Your task to perform on an android device: turn on airplane mode Image 0: 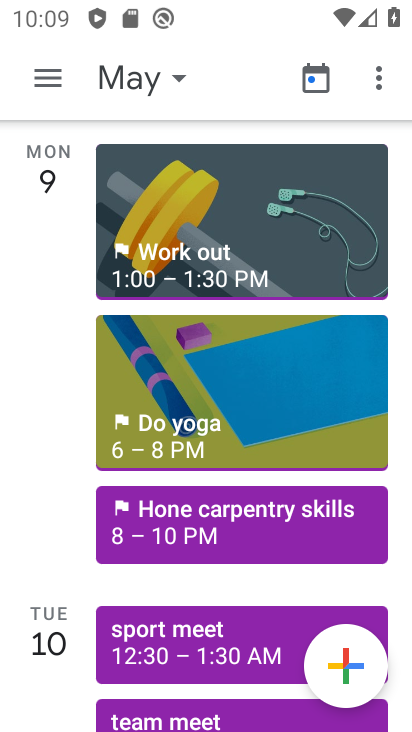
Step 0: press home button
Your task to perform on an android device: turn on airplane mode Image 1: 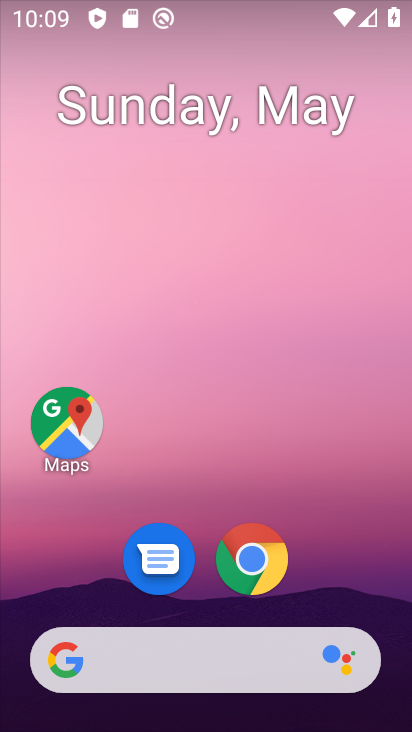
Step 1: drag from (337, 10) to (313, 731)
Your task to perform on an android device: turn on airplane mode Image 2: 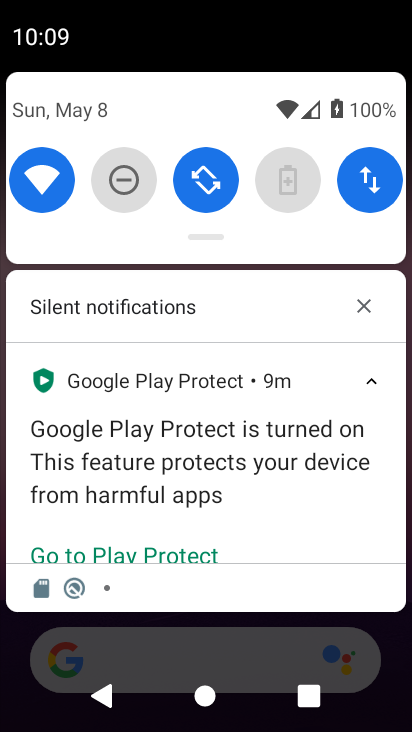
Step 2: drag from (222, 266) to (246, 630)
Your task to perform on an android device: turn on airplane mode Image 3: 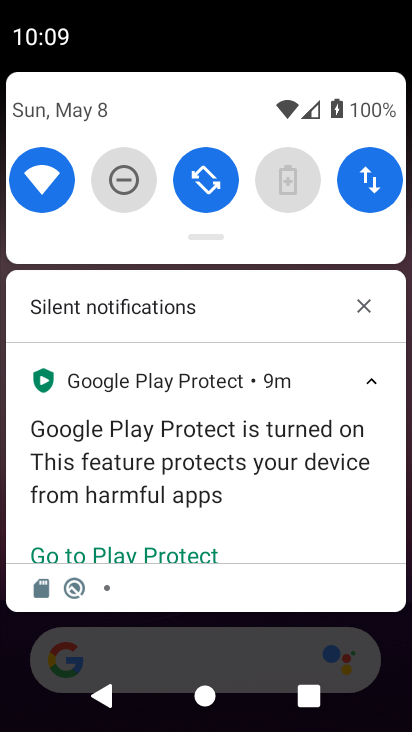
Step 3: drag from (201, 238) to (213, 728)
Your task to perform on an android device: turn on airplane mode Image 4: 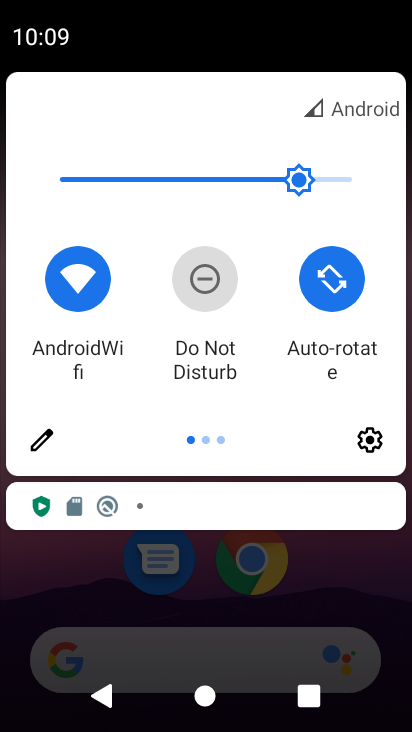
Step 4: drag from (384, 276) to (52, 284)
Your task to perform on an android device: turn on airplane mode Image 5: 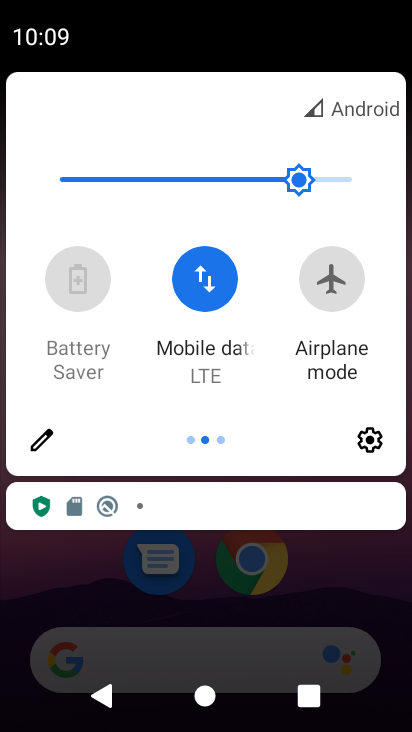
Step 5: click (339, 287)
Your task to perform on an android device: turn on airplane mode Image 6: 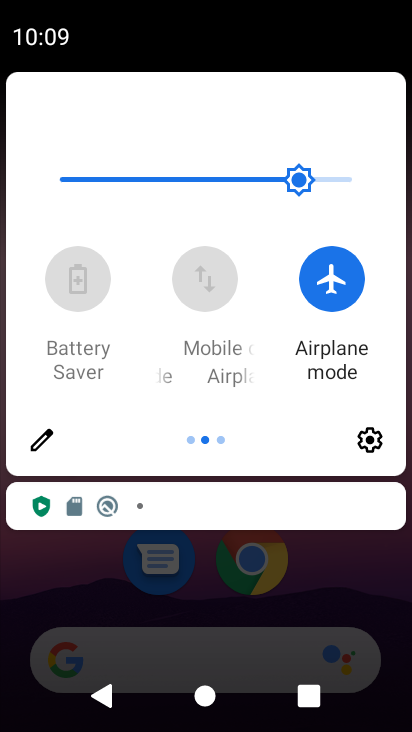
Step 6: task complete